Your task to perform on an android device: Open the stopwatch Image 0: 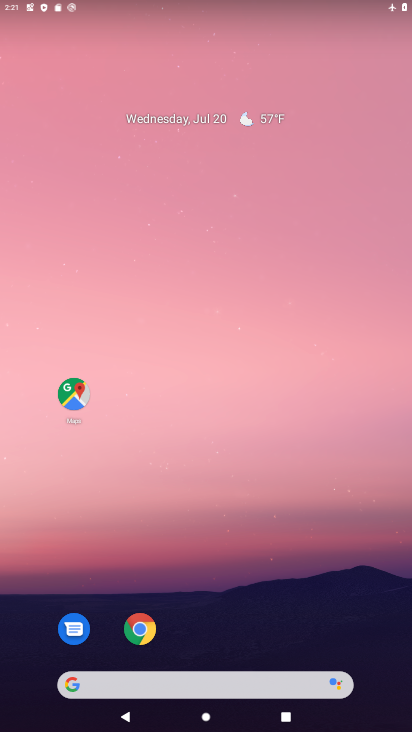
Step 0: drag from (218, 602) to (221, 257)
Your task to perform on an android device: Open the stopwatch Image 1: 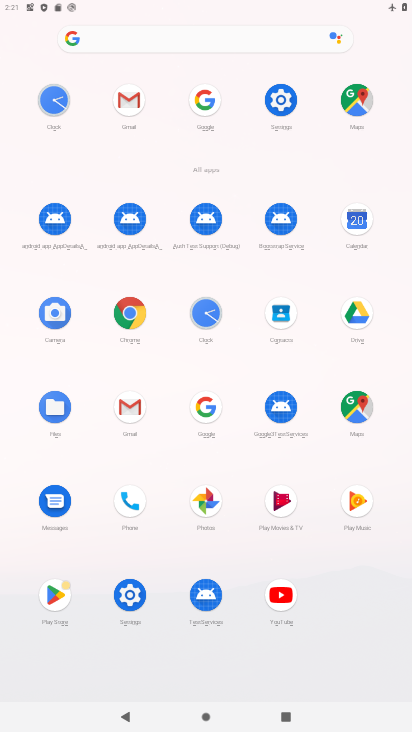
Step 1: click (206, 311)
Your task to perform on an android device: Open the stopwatch Image 2: 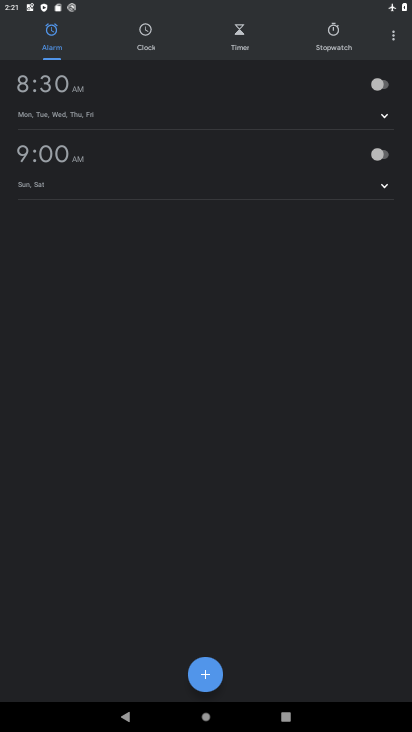
Step 2: click (391, 29)
Your task to perform on an android device: Open the stopwatch Image 3: 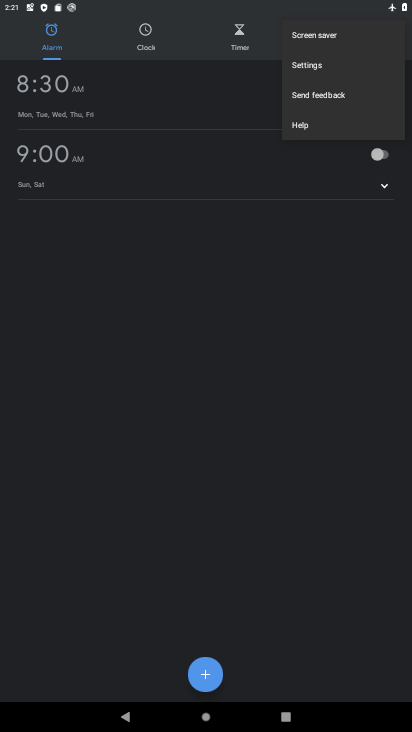
Step 3: click (218, 334)
Your task to perform on an android device: Open the stopwatch Image 4: 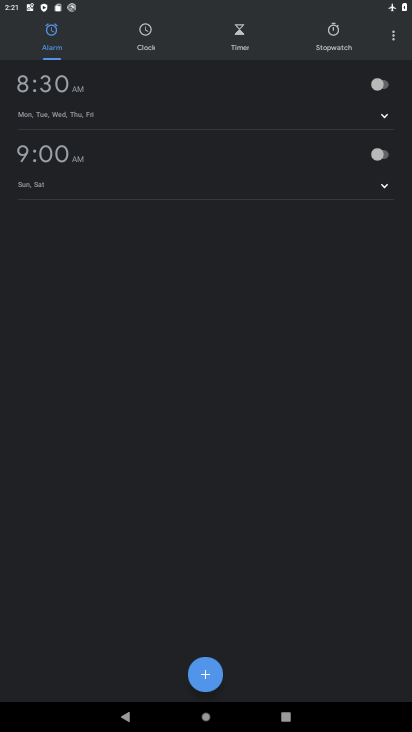
Step 4: click (317, 36)
Your task to perform on an android device: Open the stopwatch Image 5: 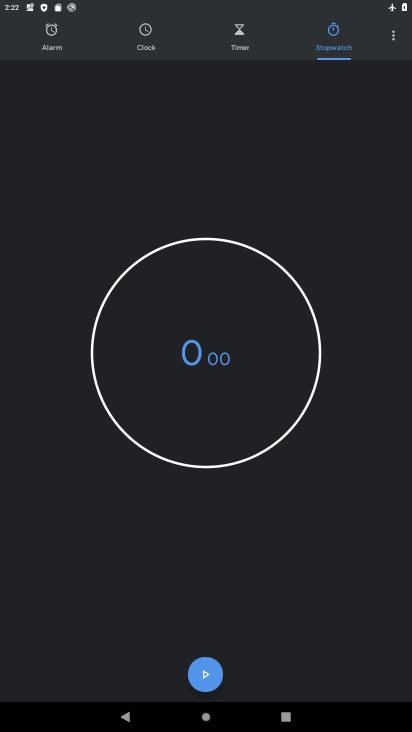
Step 5: task complete